Your task to perform on an android device: turn off notifications settings in the gmail app Image 0: 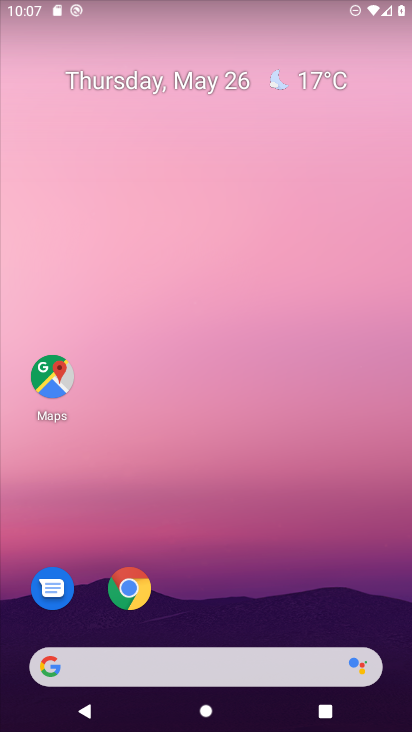
Step 0: drag from (388, 612) to (320, 113)
Your task to perform on an android device: turn off notifications settings in the gmail app Image 1: 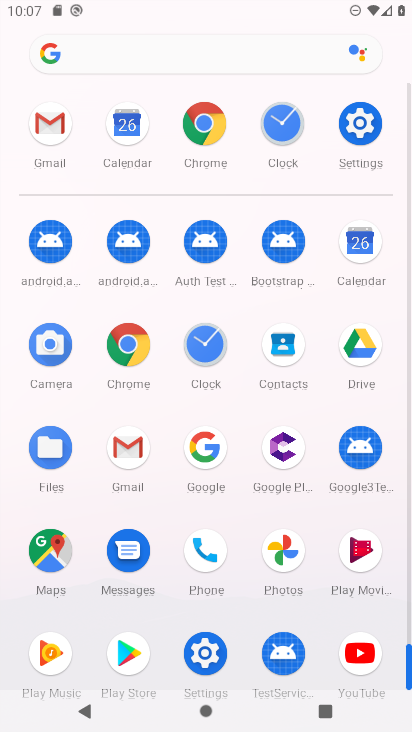
Step 1: click (126, 449)
Your task to perform on an android device: turn off notifications settings in the gmail app Image 2: 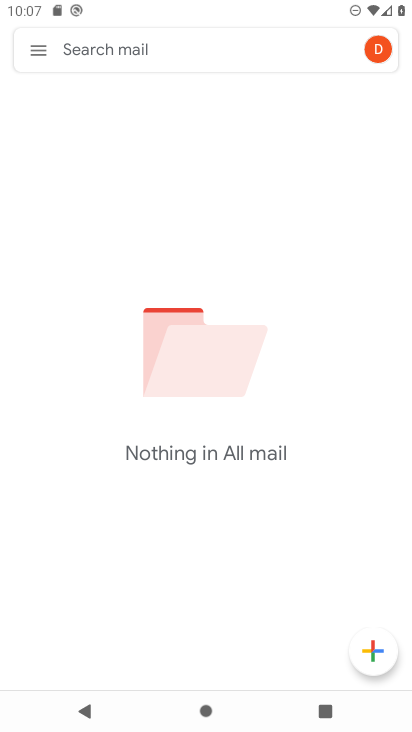
Step 2: click (39, 49)
Your task to perform on an android device: turn off notifications settings in the gmail app Image 3: 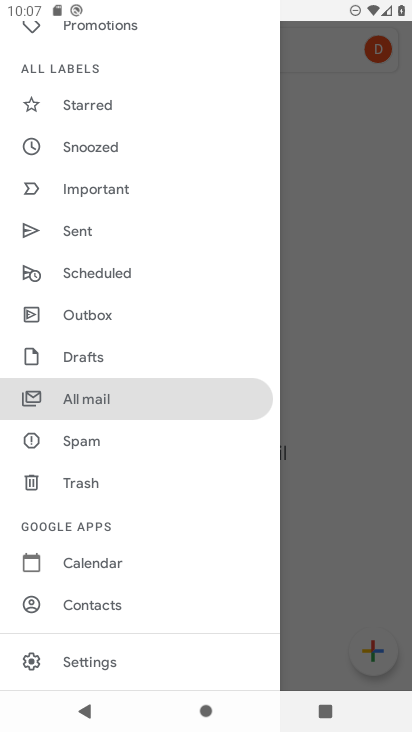
Step 3: click (97, 655)
Your task to perform on an android device: turn off notifications settings in the gmail app Image 4: 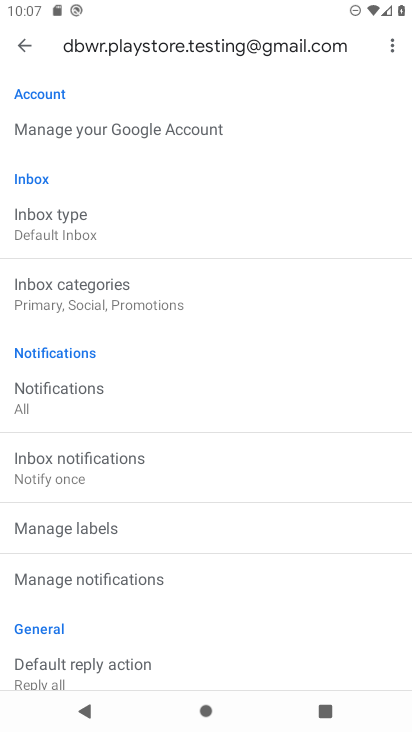
Step 4: click (68, 581)
Your task to perform on an android device: turn off notifications settings in the gmail app Image 5: 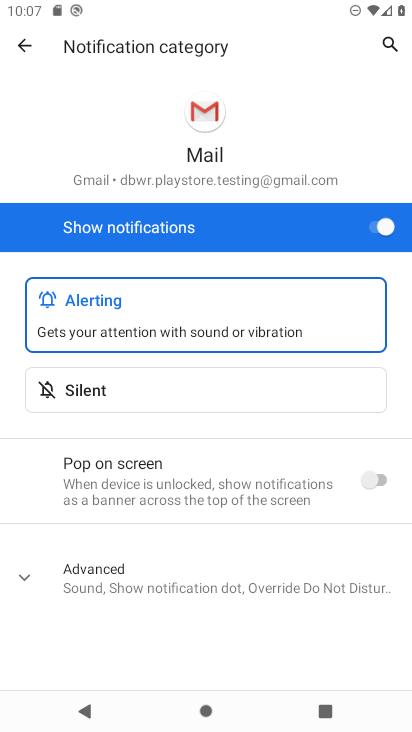
Step 5: click (371, 221)
Your task to perform on an android device: turn off notifications settings in the gmail app Image 6: 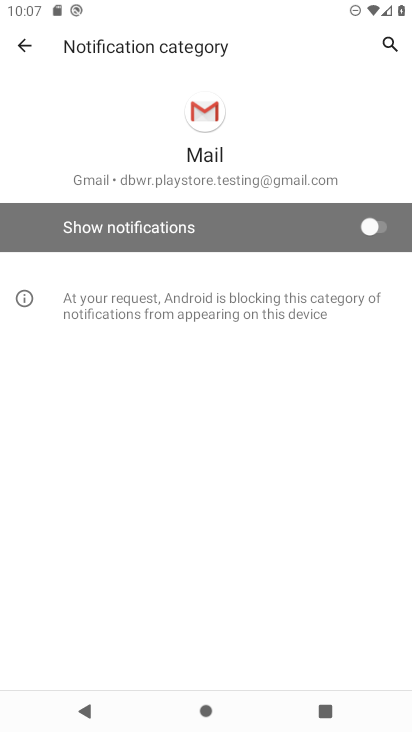
Step 6: task complete